Your task to perform on an android device: Open Reddit.com Image 0: 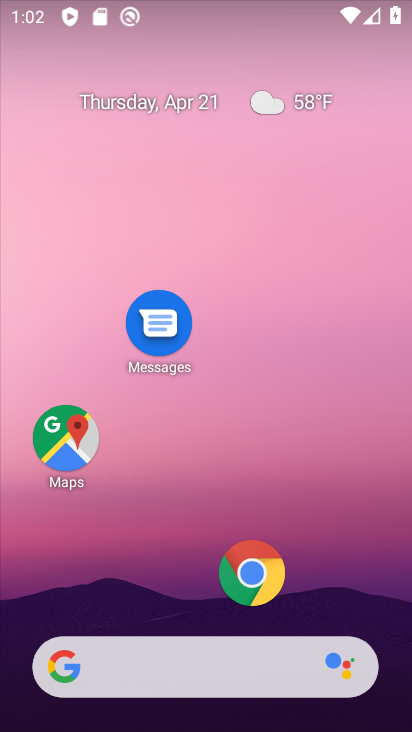
Step 0: drag from (181, 448) to (239, 6)
Your task to perform on an android device: Open Reddit.com Image 1: 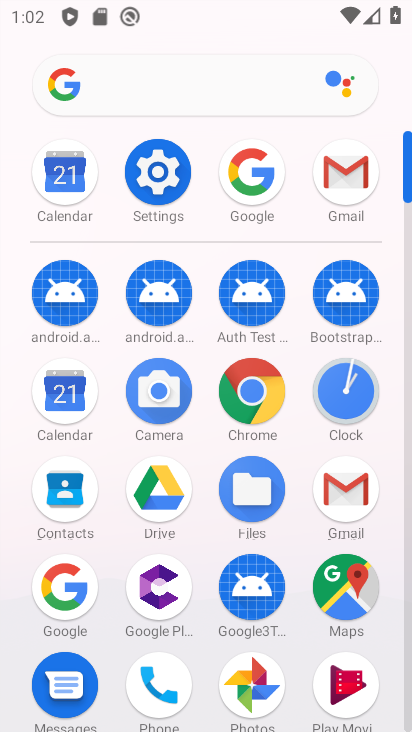
Step 1: click (258, 171)
Your task to perform on an android device: Open Reddit.com Image 2: 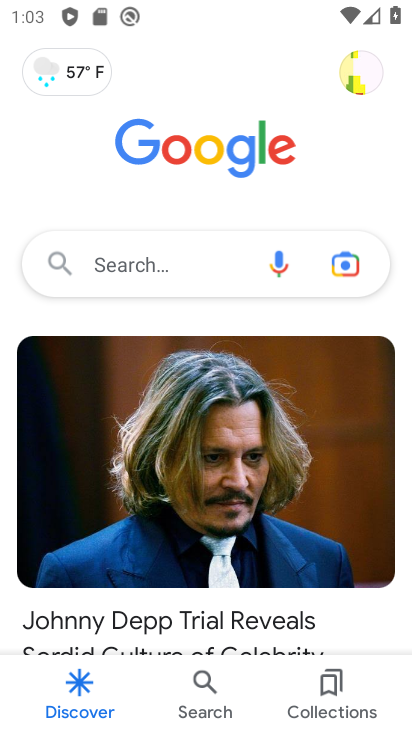
Step 2: click (216, 270)
Your task to perform on an android device: Open Reddit.com Image 3: 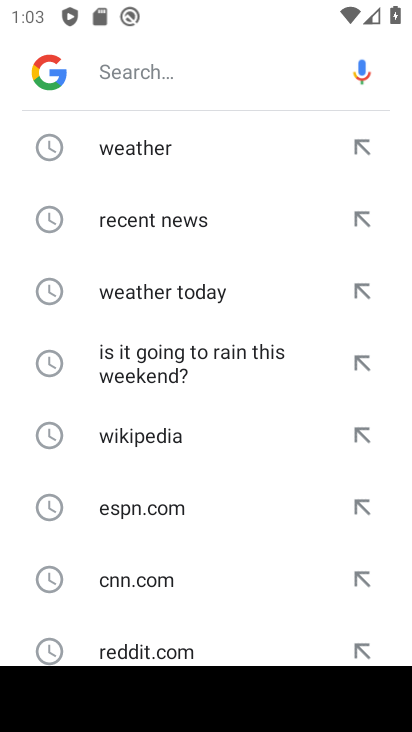
Step 3: click (241, 641)
Your task to perform on an android device: Open Reddit.com Image 4: 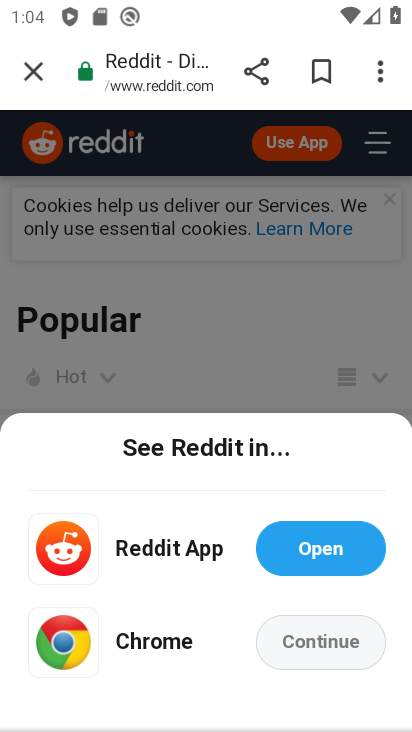
Step 4: task complete